Your task to perform on an android device: change the clock display to show seconds Image 0: 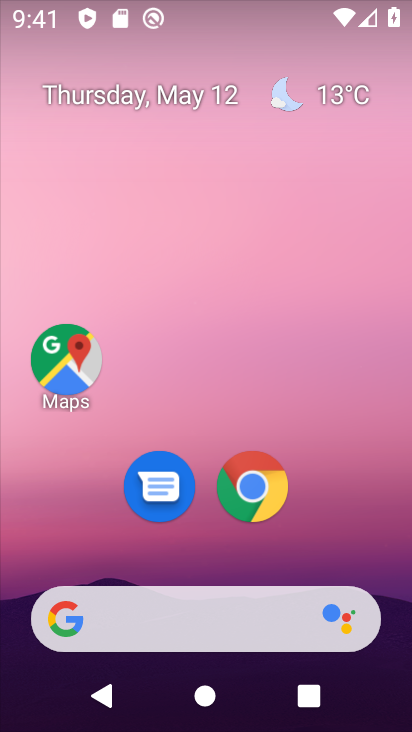
Step 0: drag from (374, 512) to (275, 10)
Your task to perform on an android device: change the clock display to show seconds Image 1: 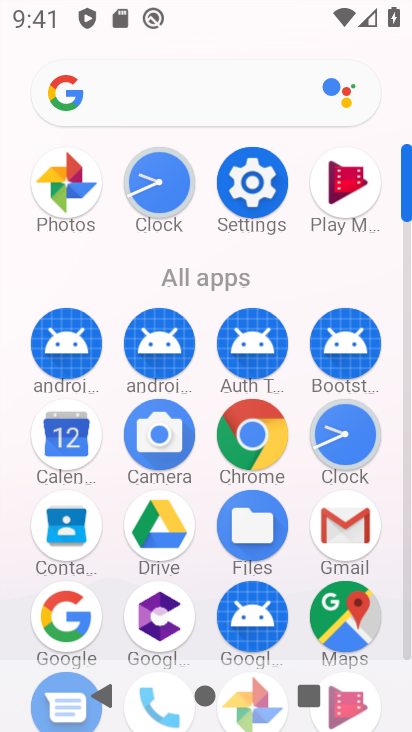
Step 1: click (168, 207)
Your task to perform on an android device: change the clock display to show seconds Image 2: 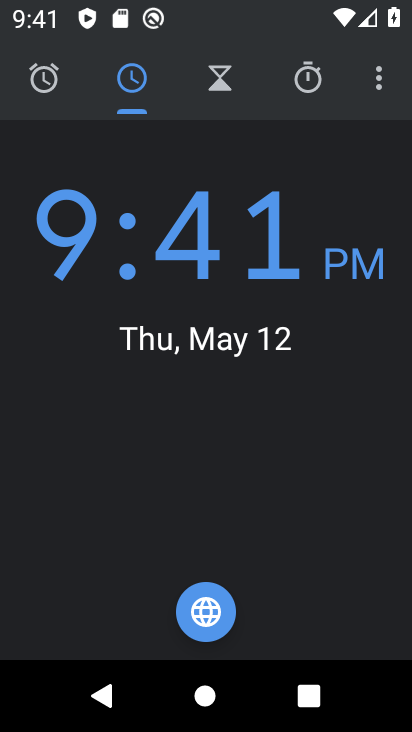
Step 2: click (385, 82)
Your task to perform on an android device: change the clock display to show seconds Image 3: 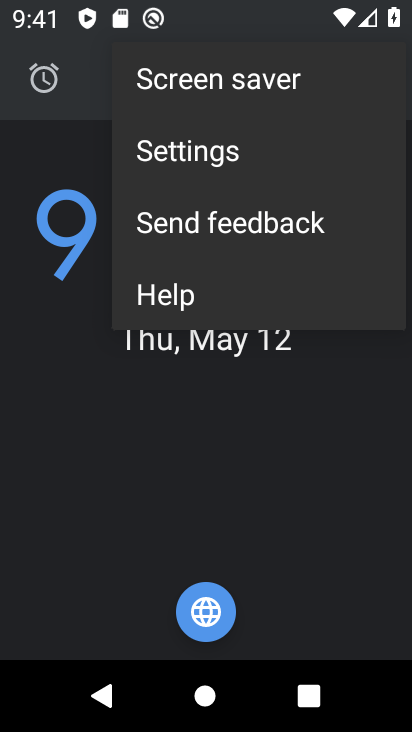
Step 3: click (219, 171)
Your task to perform on an android device: change the clock display to show seconds Image 4: 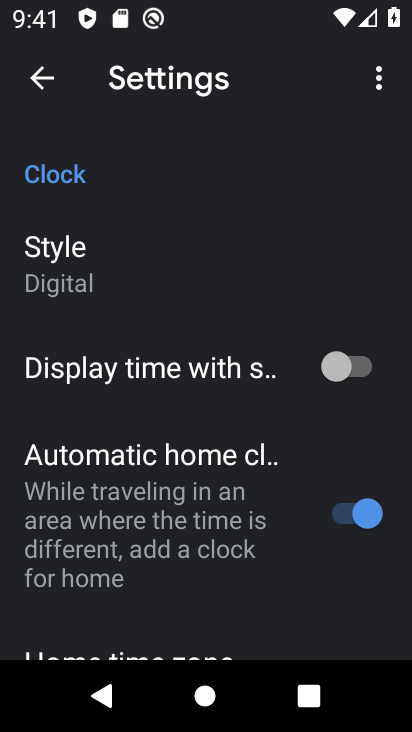
Step 4: click (345, 374)
Your task to perform on an android device: change the clock display to show seconds Image 5: 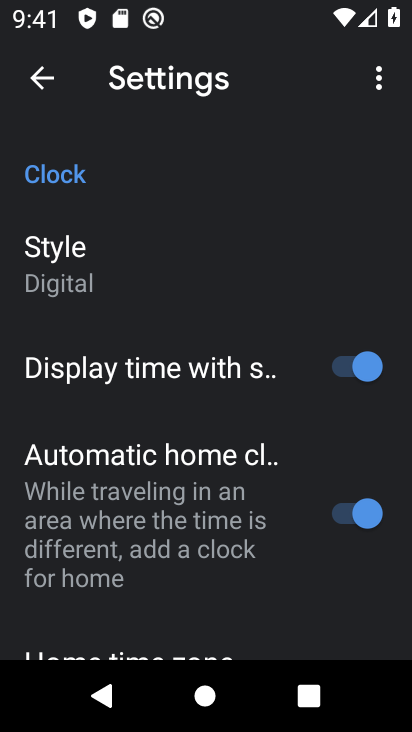
Step 5: task complete